Your task to perform on an android device: Clear all items from cart on costco. Image 0: 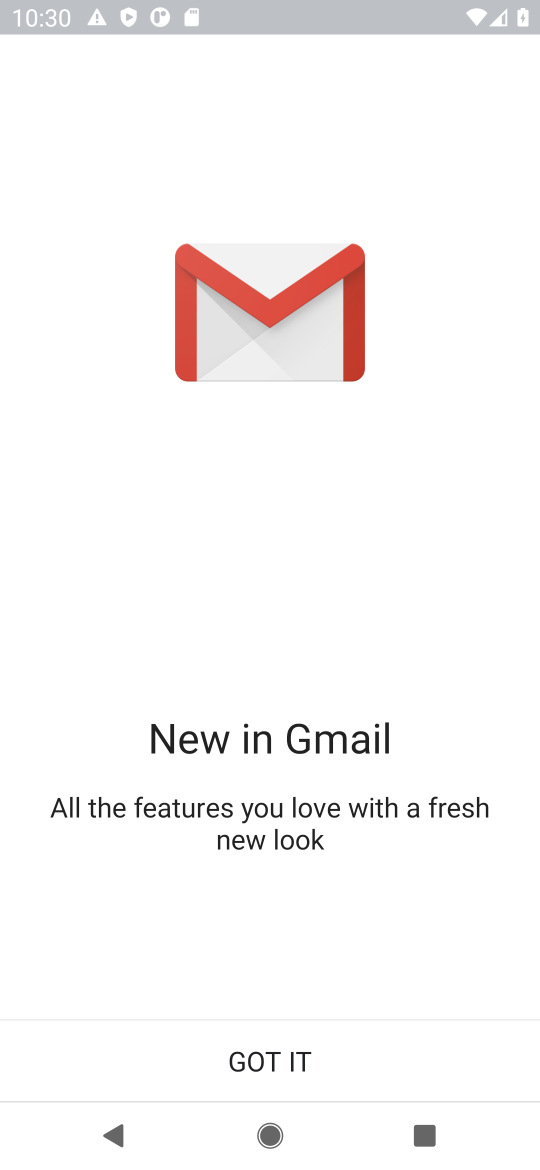
Step 0: click (358, 1075)
Your task to perform on an android device: Clear all items from cart on costco. Image 1: 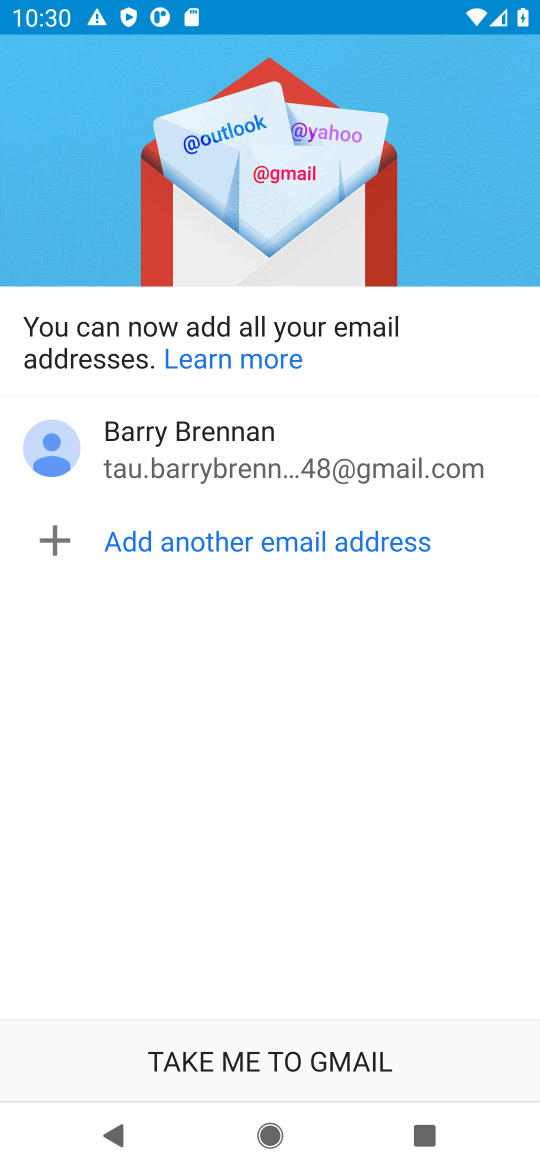
Step 1: press home button
Your task to perform on an android device: Clear all items from cart on costco. Image 2: 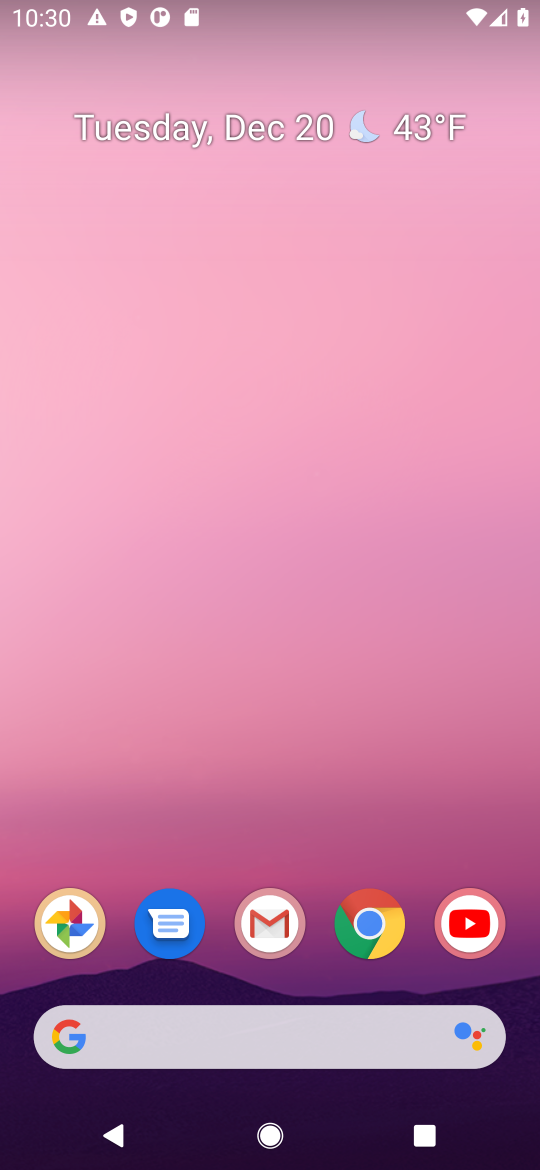
Step 2: click (380, 939)
Your task to perform on an android device: Clear all items from cart on costco. Image 3: 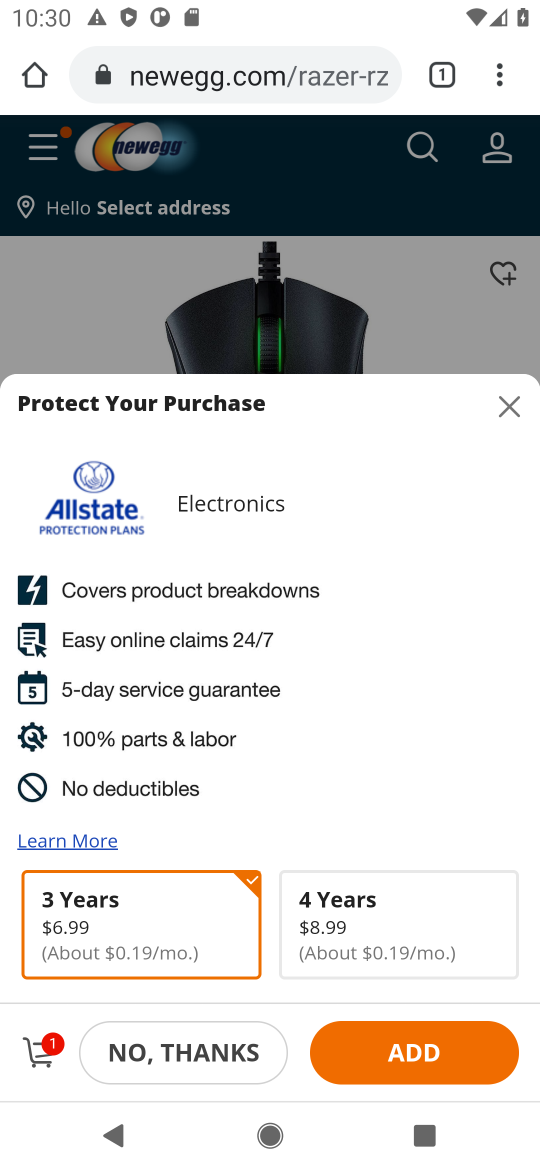
Step 3: click (248, 88)
Your task to perform on an android device: Clear all items from cart on costco. Image 4: 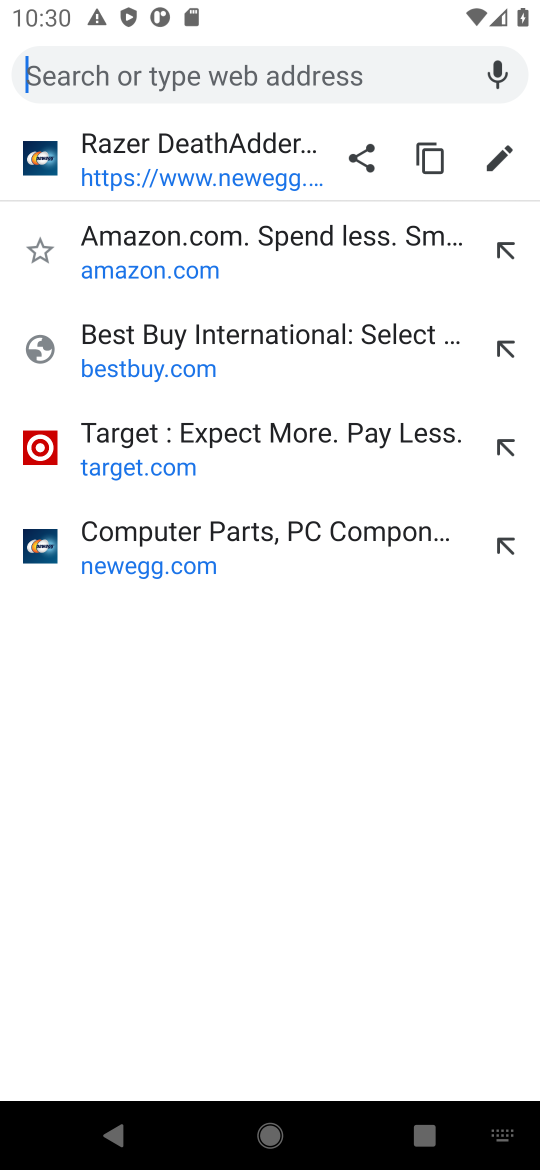
Step 4: type "costco"
Your task to perform on an android device: Clear all items from cart on costco. Image 5: 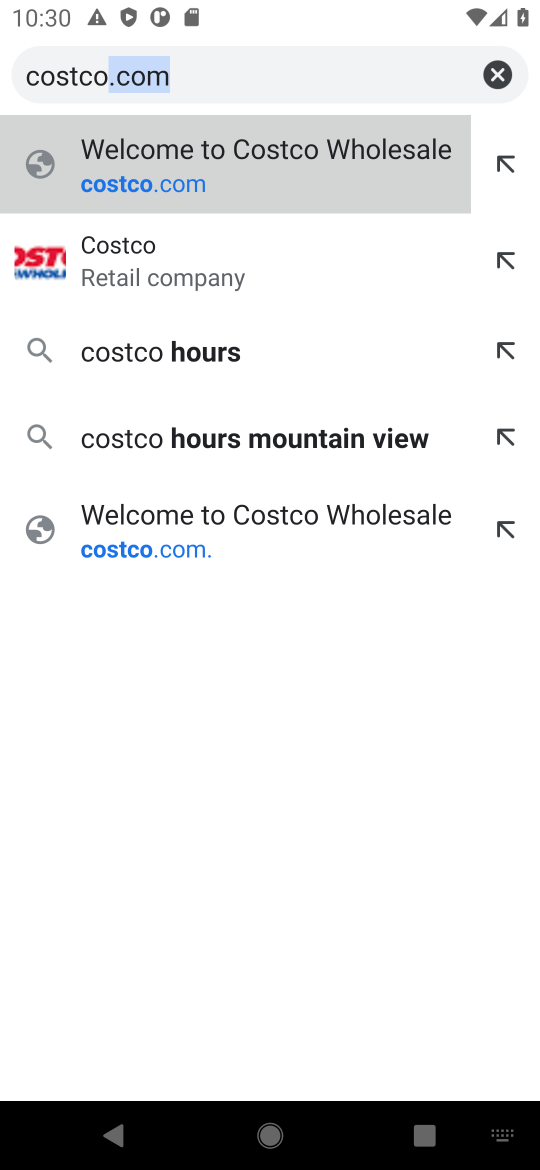
Step 5: click (166, 181)
Your task to perform on an android device: Clear all items from cart on costco. Image 6: 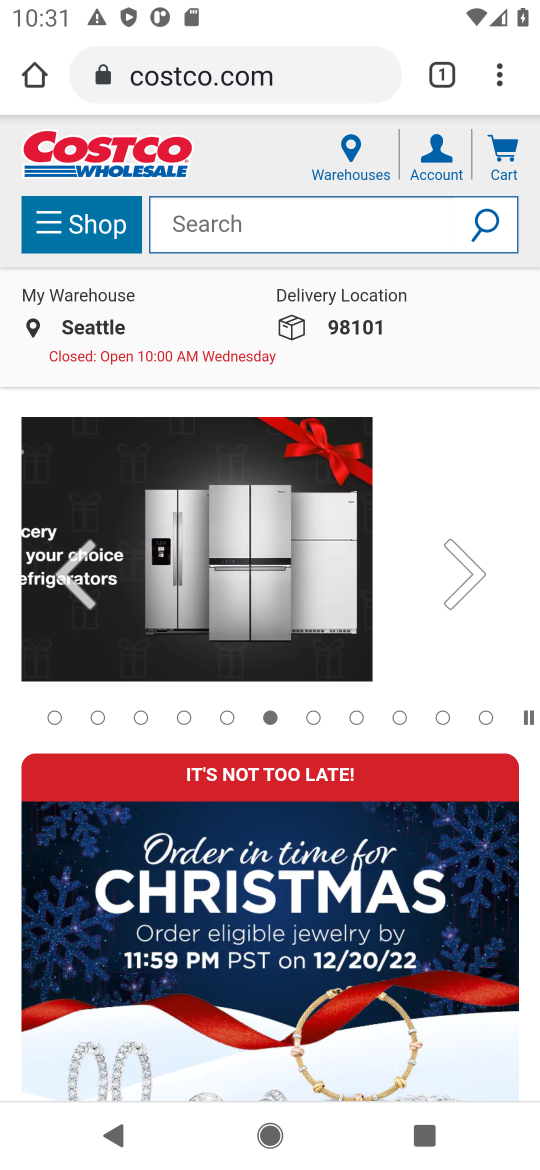
Step 6: click (497, 172)
Your task to perform on an android device: Clear all items from cart on costco. Image 7: 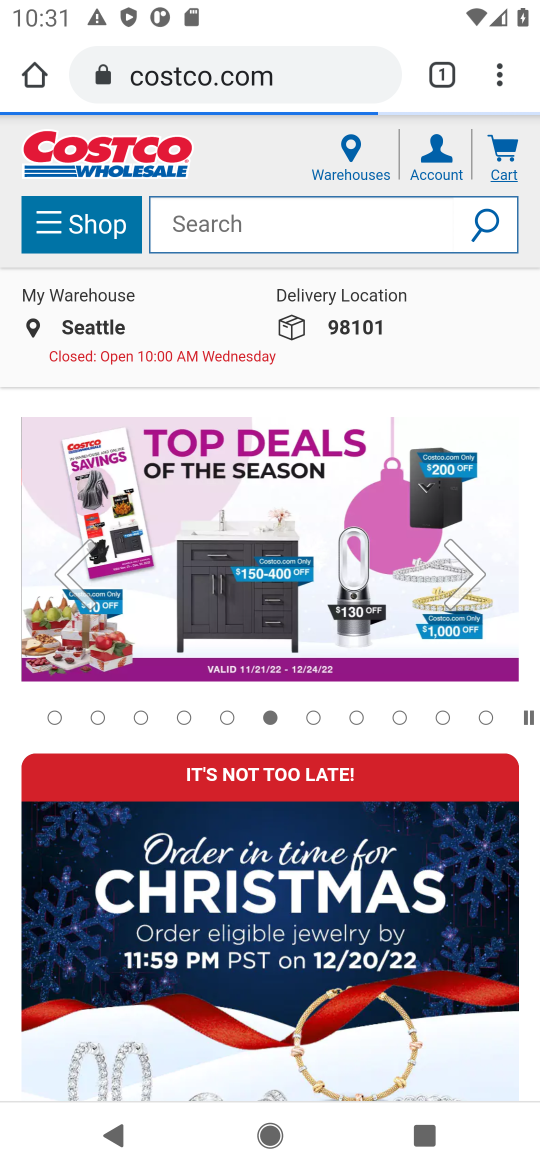
Step 7: task complete